Your task to perform on an android device: turn notification dots on Image 0: 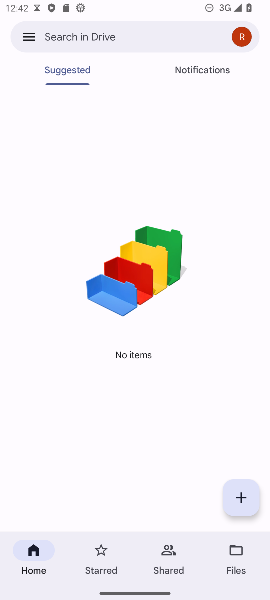
Step 0: press back button
Your task to perform on an android device: turn notification dots on Image 1: 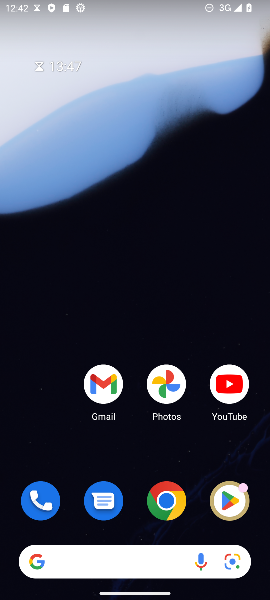
Step 1: drag from (126, 450) to (110, 78)
Your task to perform on an android device: turn notification dots on Image 2: 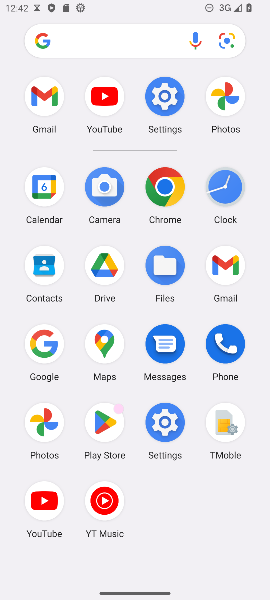
Step 2: click (162, 424)
Your task to perform on an android device: turn notification dots on Image 3: 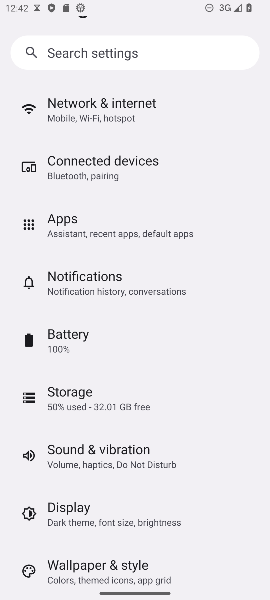
Step 3: drag from (105, 472) to (227, 104)
Your task to perform on an android device: turn notification dots on Image 4: 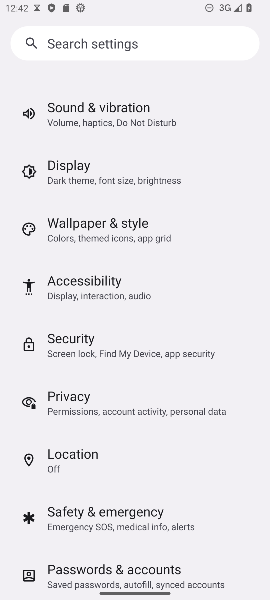
Step 4: drag from (112, 467) to (126, 589)
Your task to perform on an android device: turn notification dots on Image 5: 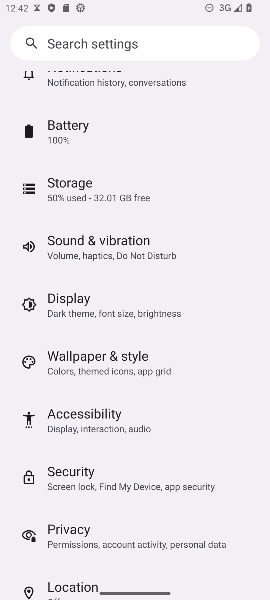
Step 5: drag from (150, 125) to (137, 365)
Your task to perform on an android device: turn notification dots on Image 6: 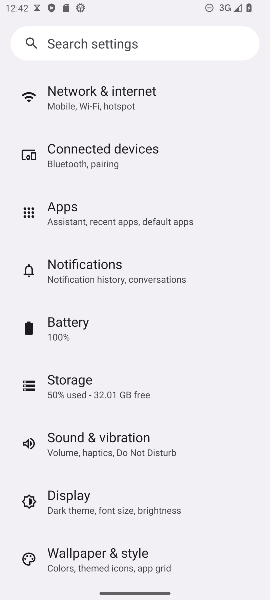
Step 6: click (78, 267)
Your task to perform on an android device: turn notification dots on Image 7: 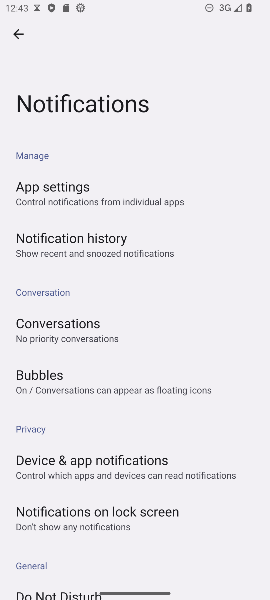
Step 7: drag from (126, 380) to (131, 345)
Your task to perform on an android device: turn notification dots on Image 8: 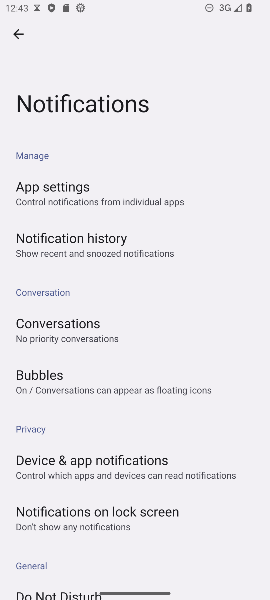
Step 8: drag from (119, 545) to (119, 312)
Your task to perform on an android device: turn notification dots on Image 9: 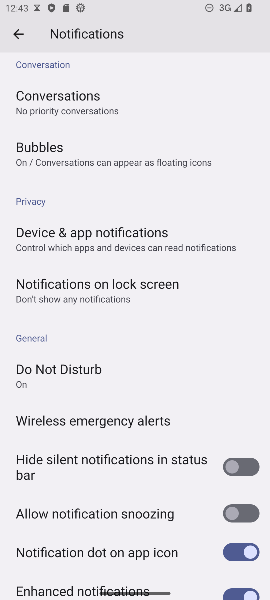
Step 9: drag from (159, 509) to (167, 262)
Your task to perform on an android device: turn notification dots on Image 10: 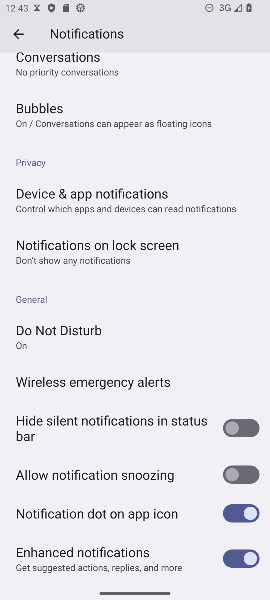
Step 10: click (232, 510)
Your task to perform on an android device: turn notification dots on Image 11: 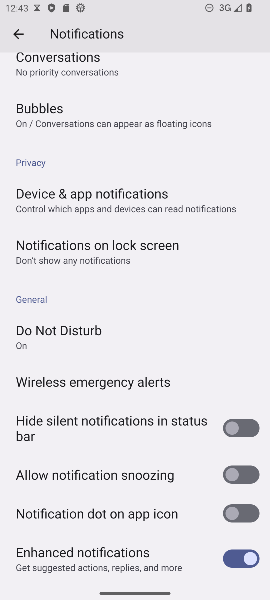
Step 11: task complete